Your task to perform on an android device: change the clock display to show seconds Image 0: 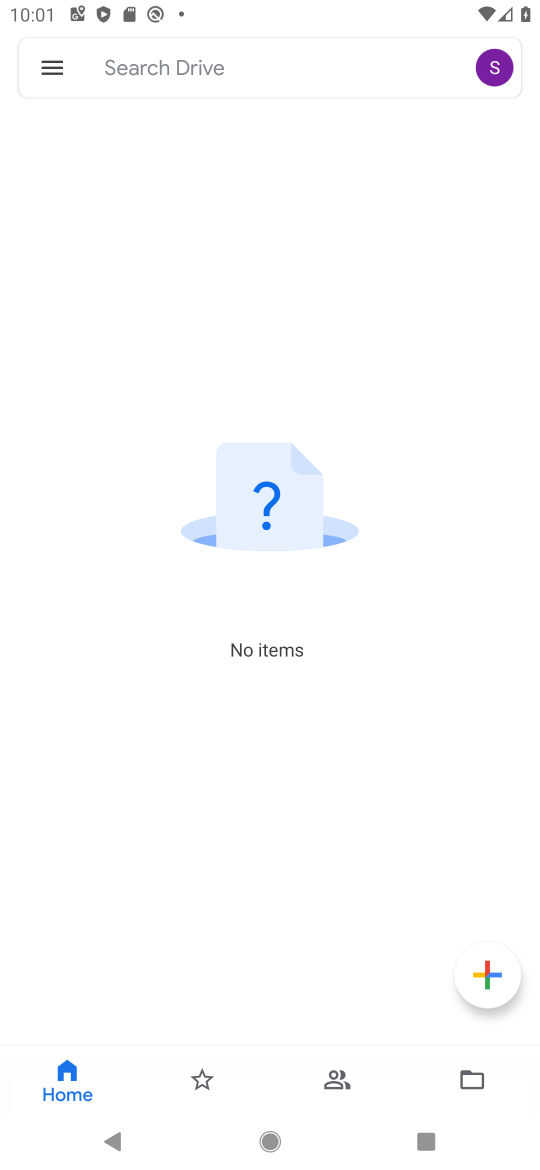
Step 0: press home button
Your task to perform on an android device: change the clock display to show seconds Image 1: 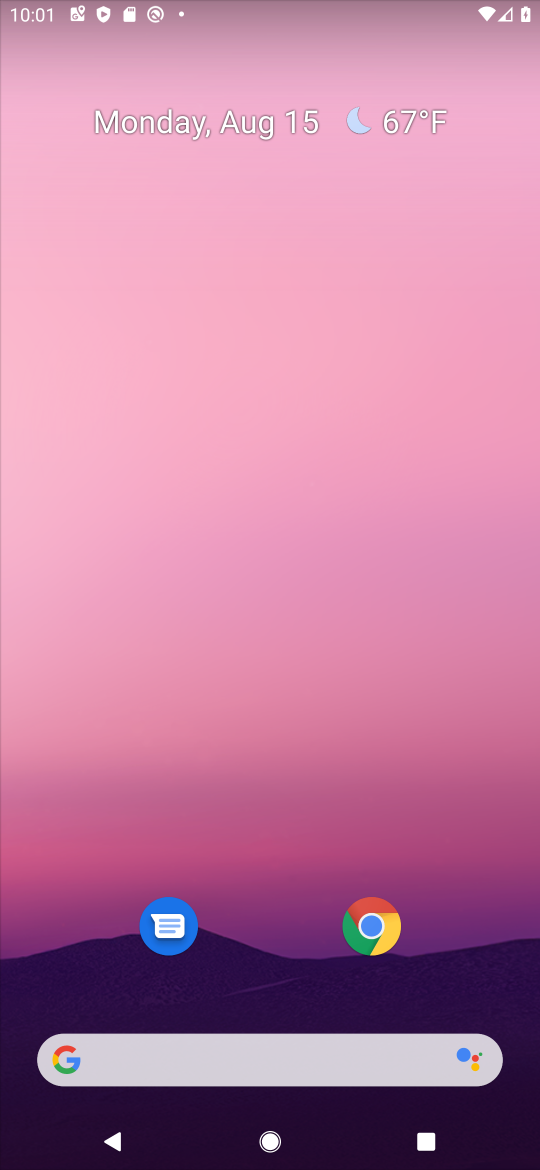
Step 1: drag from (305, 974) to (173, 506)
Your task to perform on an android device: change the clock display to show seconds Image 2: 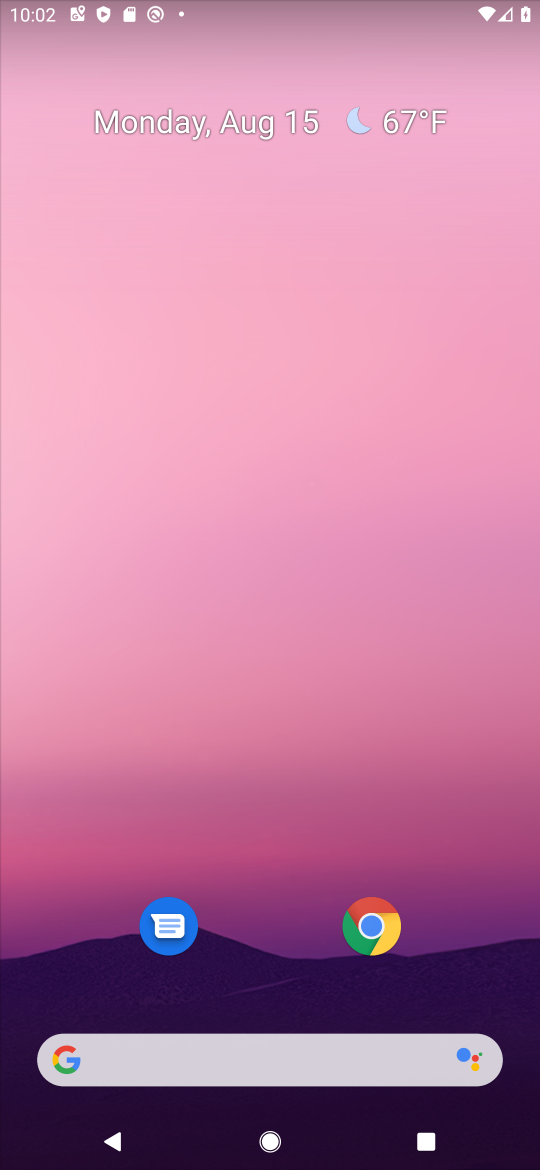
Step 2: drag from (222, 973) to (354, 57)
Your task to perform on an android device: change the clock display to show seconds Image 3: 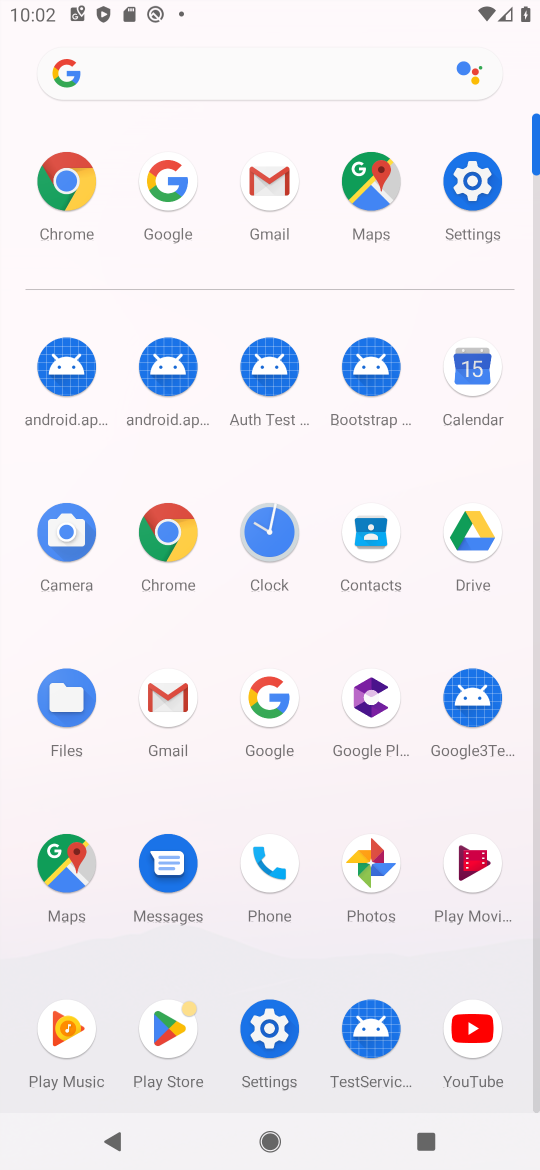
Step 3: click (270, 550)
Your task to perform on an android device: change the clock display to show seconds Image 4: 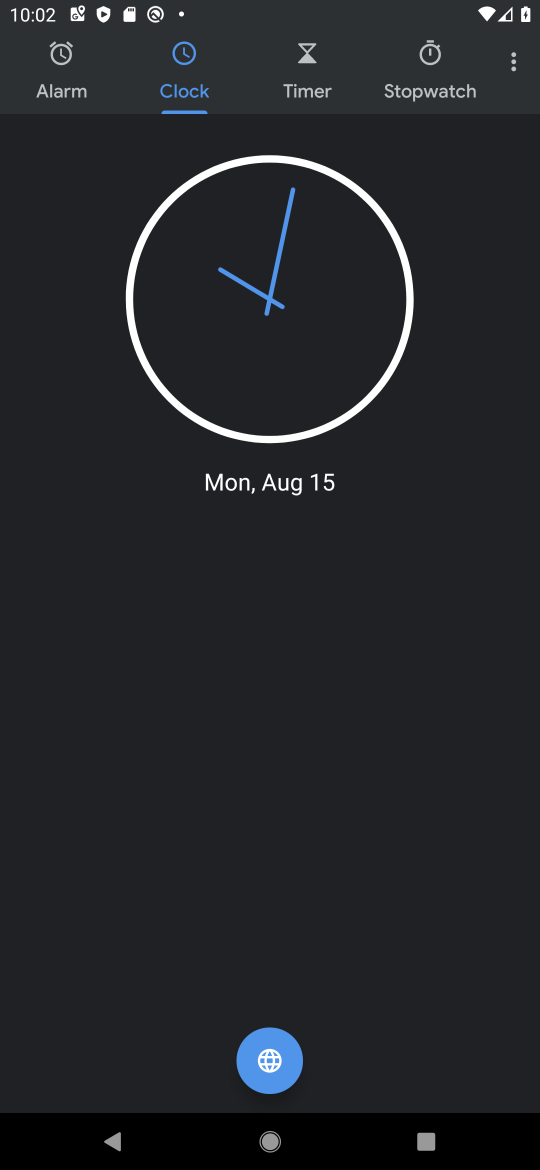
Step 4: click (510, 57)
Your task to perform on an android device: change the clock display to show seconds Image 5: 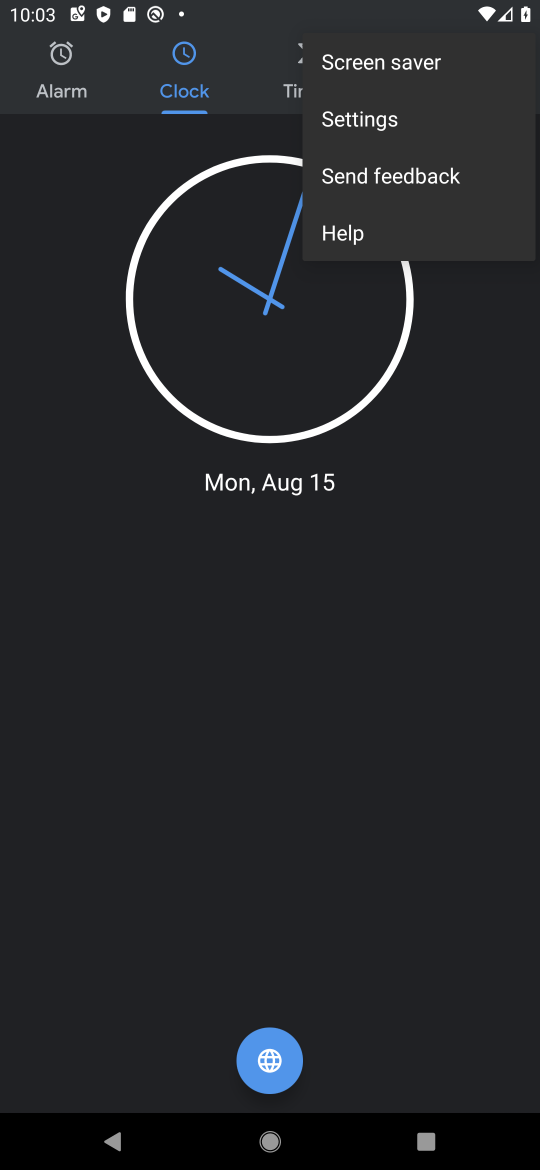
Step 5: click (372, 124)
Your task to perform on an android device: change the clock display to show seconds Image 6: 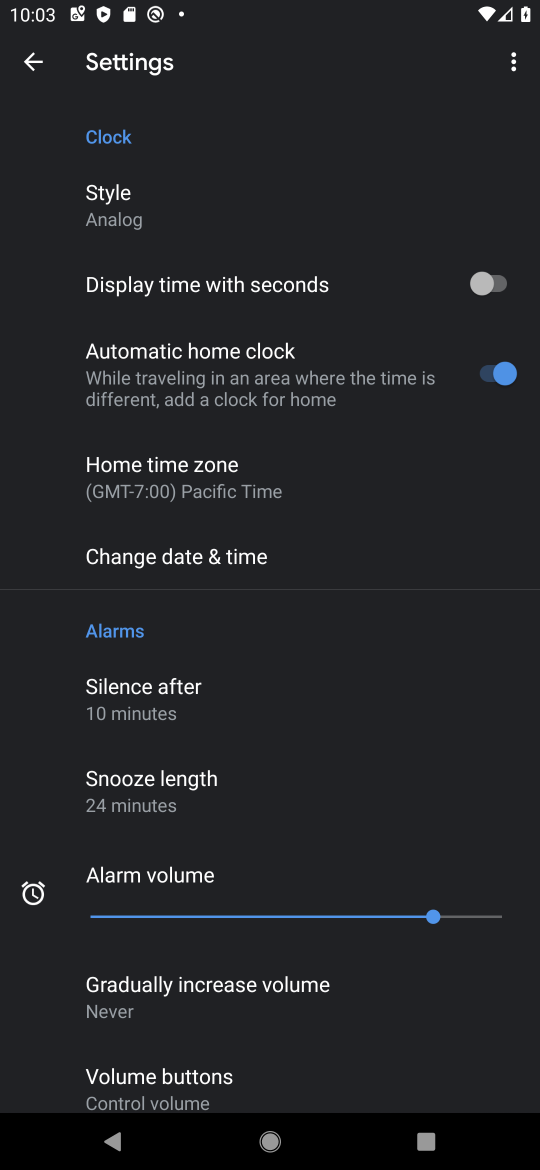
Step 6: click (261, 275)
Your task to perform on an android device: change the clock display to show seconds Image 7: 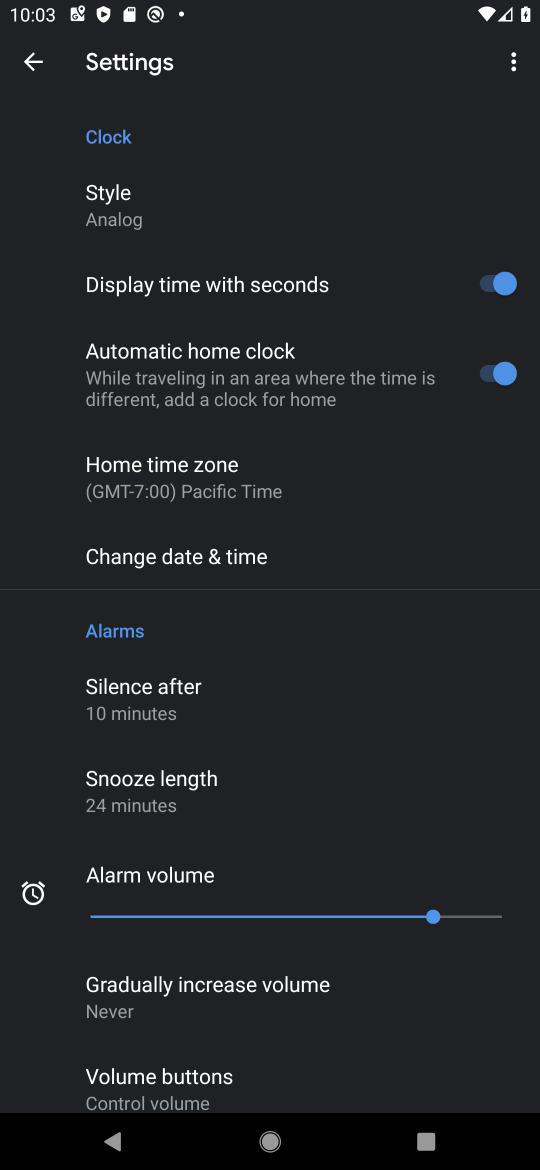
Step 7: task complete